Your task to perform on an android device: delete the emails in spam in the gmail app Image 0: 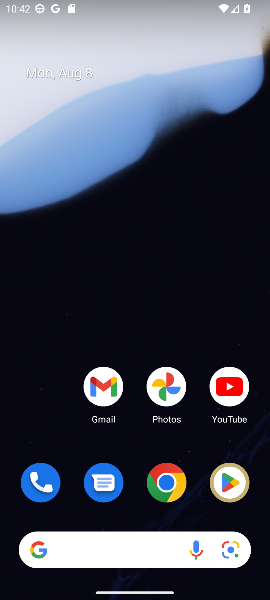
Step 0: click (106, 391)
Your task to perform on an android device: delete the emails in spam in the gmail app Image 1: 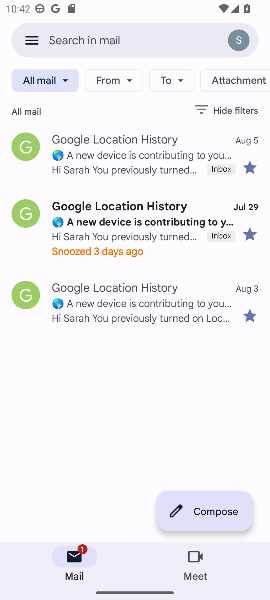
Step 1: click (32, 36)
Your task to perform on an android device: delete the emails in spam in the gmail app Image 2: 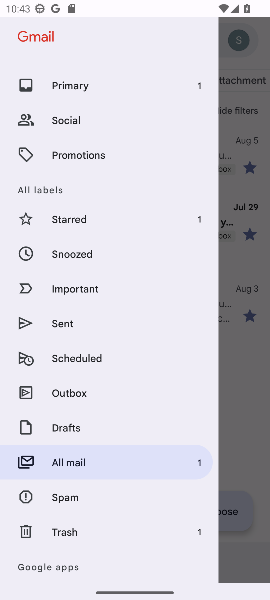
Step 2: click (73, 496)
Your task to perform on an android device: delete the emails in spam in the gmail app Image 3: 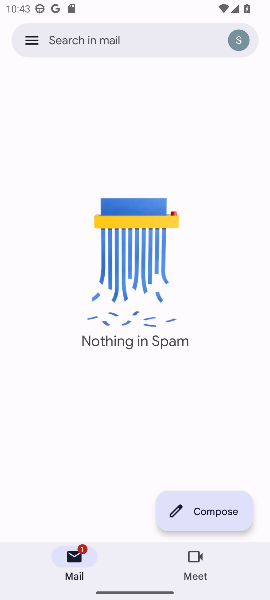
Step 3: task complete